Your task to perform on an android device: open chrome privacy settings Image 0: 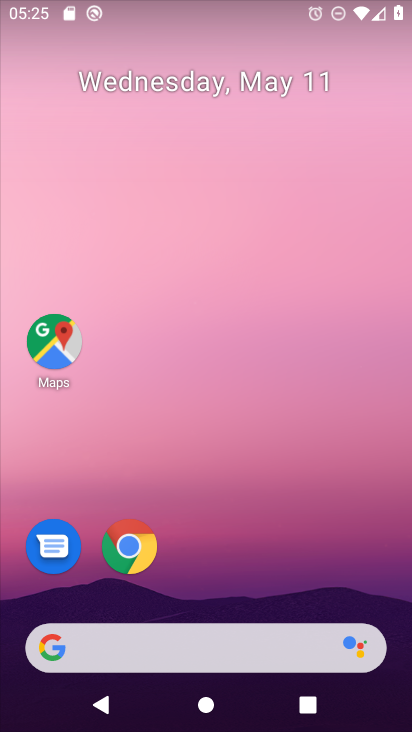
Step 0: drag from (183, 659) to (202, 17)
Your task to perform on an android device: open chrome privacy settings Image 1: 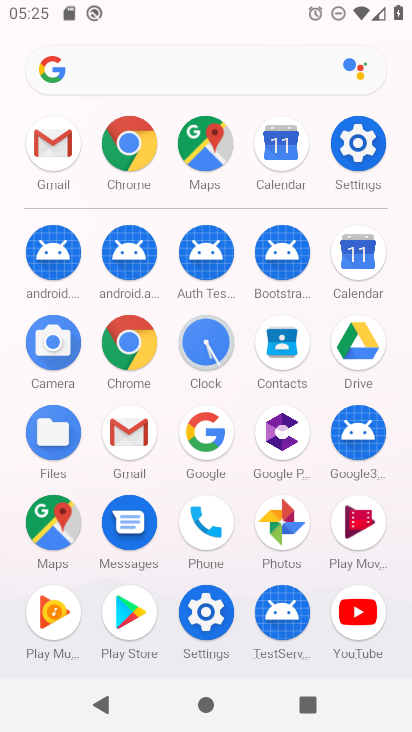
Step 1: click (135, 353)
Your task to perform on an android device: open chrome privacy settings Image 2: 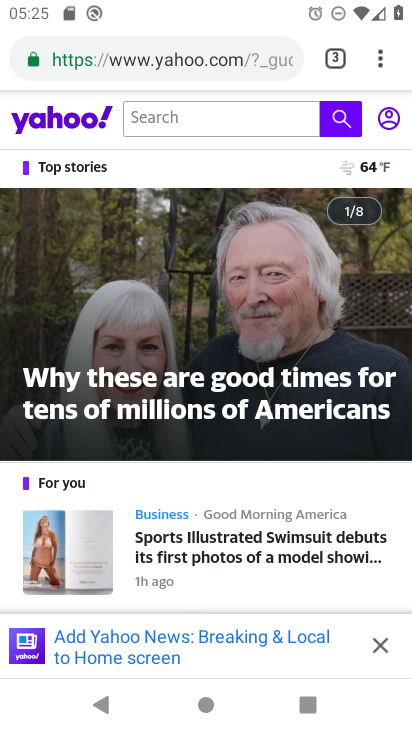
Step 2: task complete